Your task to perform on an android device: Go to privacy settings Image 0: 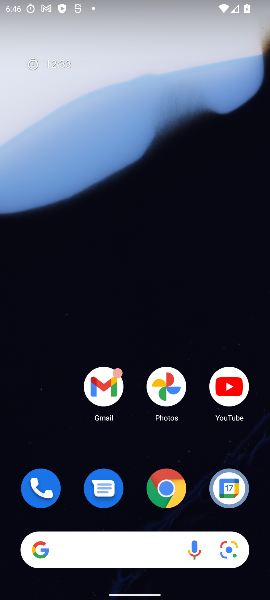
Step 0: drag from (52, 410) to (81, 1)
Your task to perform on an android device: Go to privacy settings Image 1: 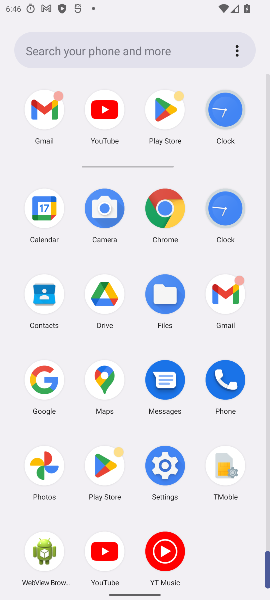
Step 1: click (162, 469)
Your task to perform on an android device: Go to privacy settings Image 2: 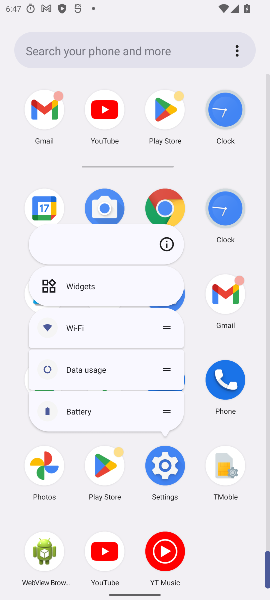
Step 2: click (161, 462)
Your task to perform on an android device: Go to privacy settings Image 3: 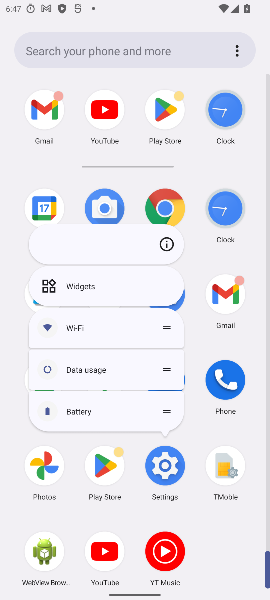
Step 3: click (160, 461)
Your task to perform on an android device: Go to privacy settings Image 4: 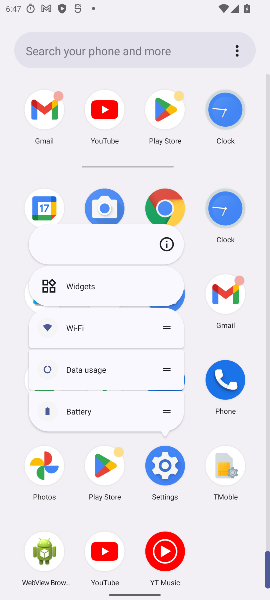
Step 4: click (160, 461)
Your task to perform on an android device: Go to privacy settings Image 5: 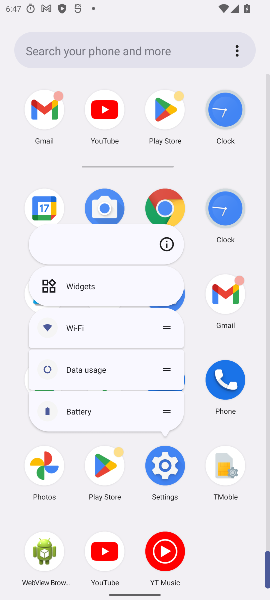
Step 5: click (160, 460)
Your task to perform on an android device: Go to privacy settings Image 6: 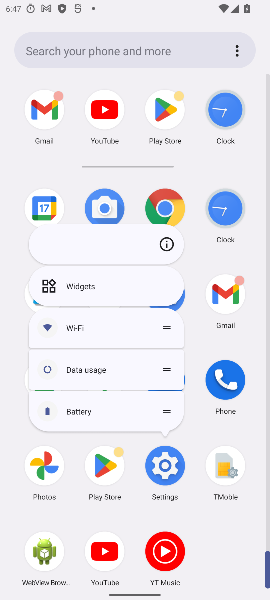
Step 6: click (160, 460)
Your task to perform on an android device: Go to privacy settings Image 7: 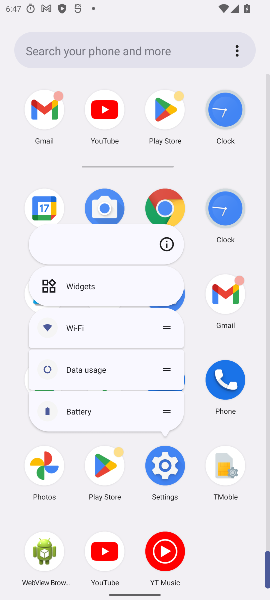
Step 7: click (159, 459)
Your task to perform on an android device: Go to privacy settings Image 8: 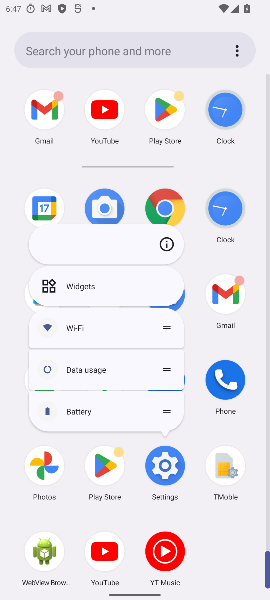
Step 8: click (159, 460)
Your task to perform on an android device: Go to privacy settings Image 9: 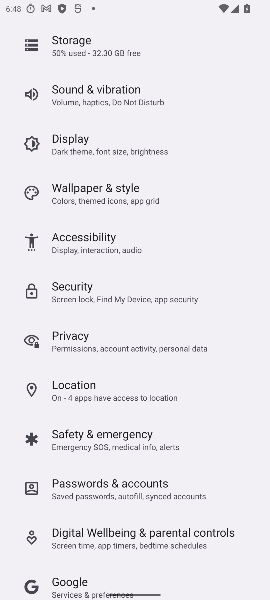
Step 9: click (106, 336)
Your task to perform on an android device: Go to privacy settings Image 10: 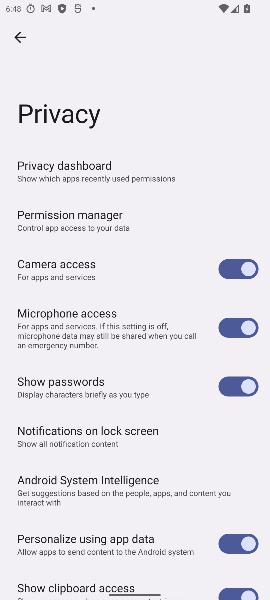
Step 10: task complete